Your task to perform on an android device: Open the phone app and click the voicemail tab. Image 0: 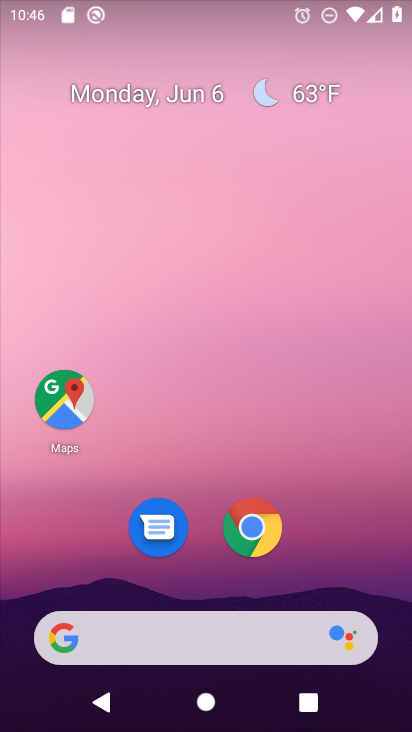
Step 0: drag from (356, 554) to (346, 199)
Your task to perform on an android device: Open the phone app and click the voicemail tab. Image 1: 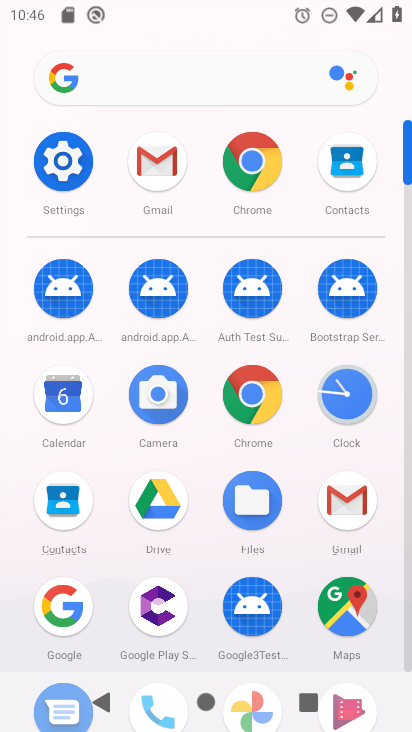
Step 1: drag from (299, 578) to (309, 428)
Your task to perform on an android device: Open the phone app and click the voicemail tab. Image 2: 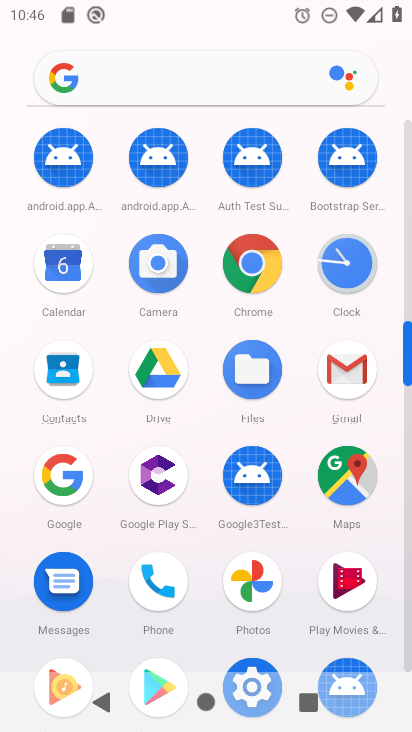
Step 2: click (355, 584)
Your task to perform on an android device: Open the phone app and click the voicemail tab. Image 3: 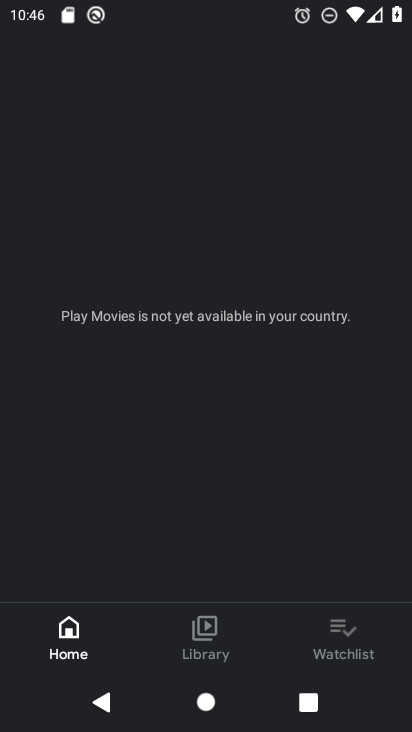
Step 3: click (353, 648)
Your task to perform on an android device: Open the phone app and click the voicemail tab. Image 4: 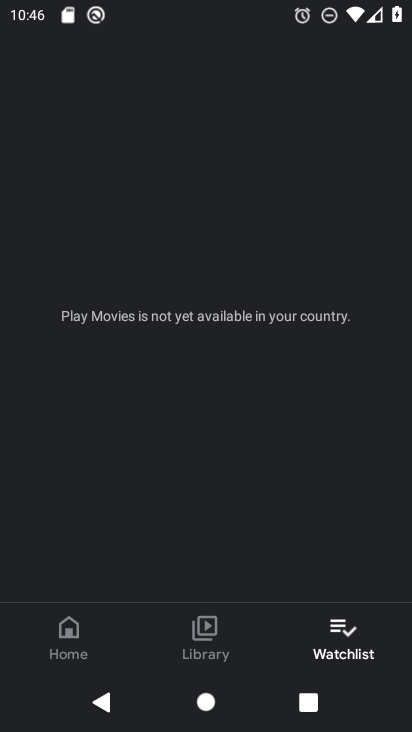
Step 4: task complete